Your task to perform on an android device: turn on the 24-hour format for clock Image 0: 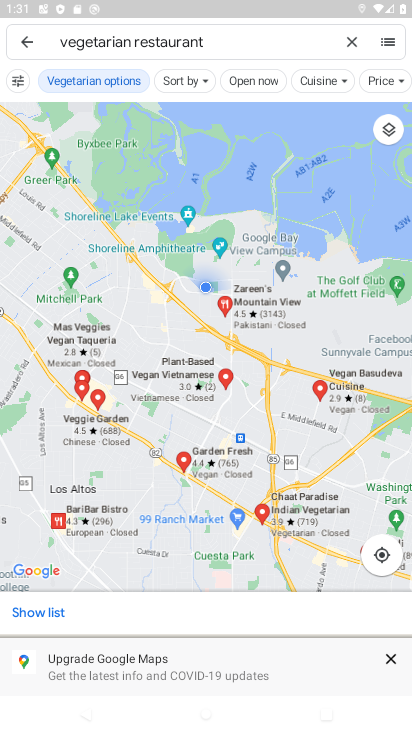
Step 0: press home button
Your task to perform on an android device: turn on the 24-hour format for clock Image 1: 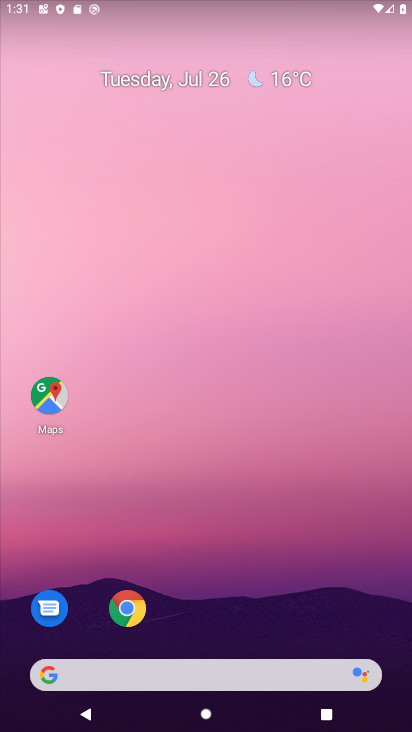
Step 1: drag from (265, 614) to (286, 267)
Your task to perform on an android device: turn on the 24-hour format for clock Image 2: 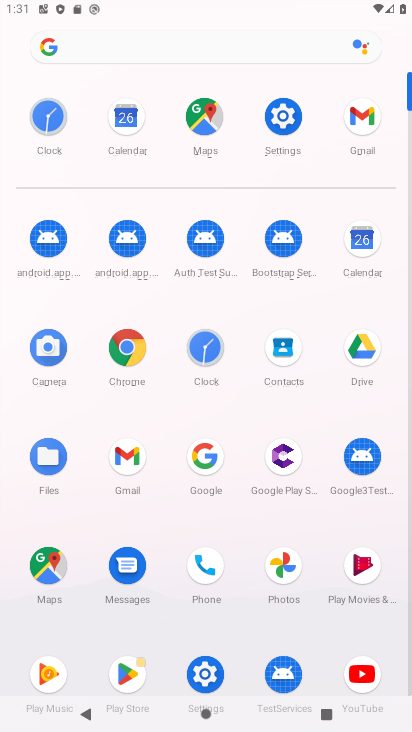
Step 2: click (36, 125)
Your task to perform on an android device: turn on the 24-hour format for clock Image 3: 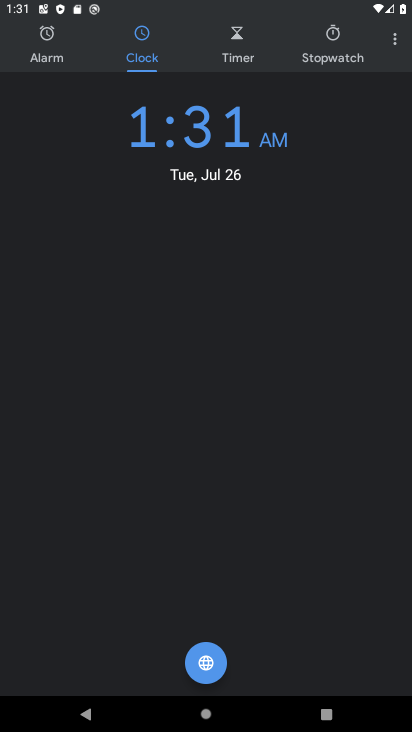
Step 3: click (389, 41)
Your task to perform on an android device: turn on the 24-hour format for clock Image 4: 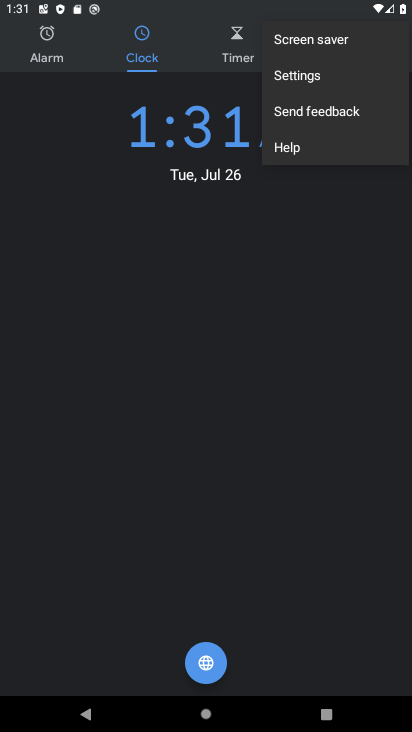
Step 4: click (287, 83)
Your task to perform on an android device: turn on the 24-hour format for clock Image 5: 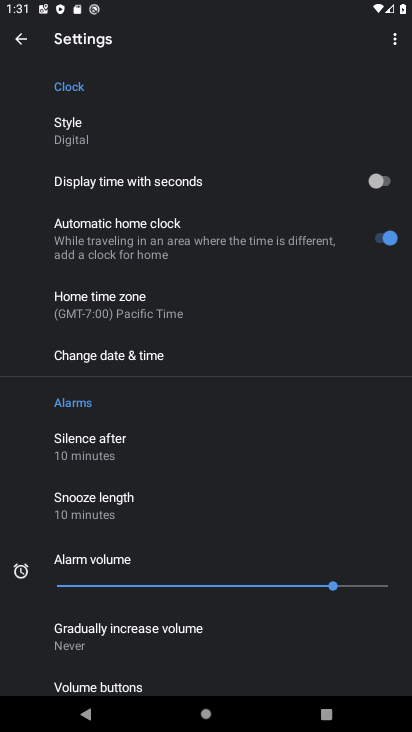
Step 5: task complete